Your task to perform on an android device: toggle translation in the chrome app Image 0: 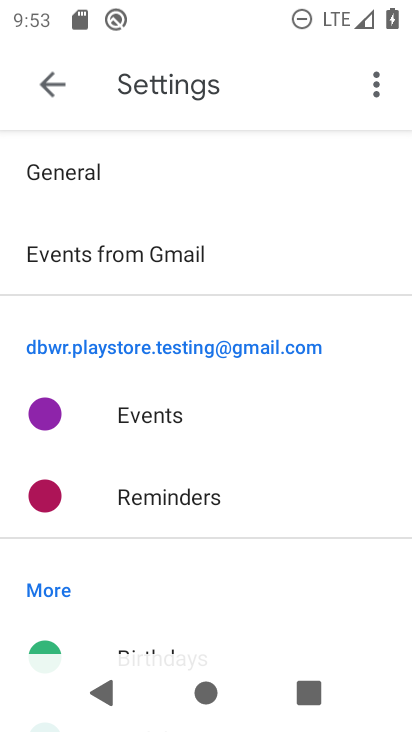
Step 0: press home button
Your task to perform on an android device: toggle translation in the chrome app Image 1: 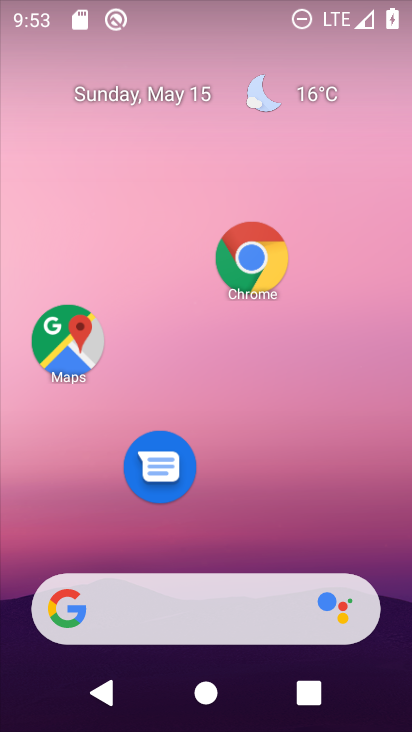
Step 1: click (253, 259)
Your task to perform on an android device: toggle translation in the chrome app Image 2: 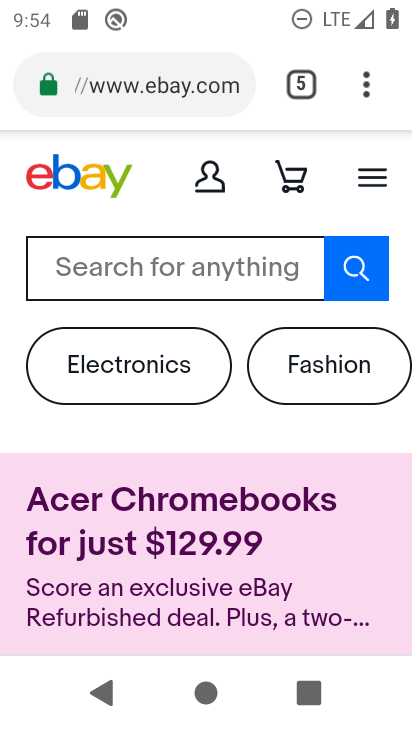
Step 2: click (376, 82)
Your task to perform on an android device: toggle translation in the chrome app Image 3: 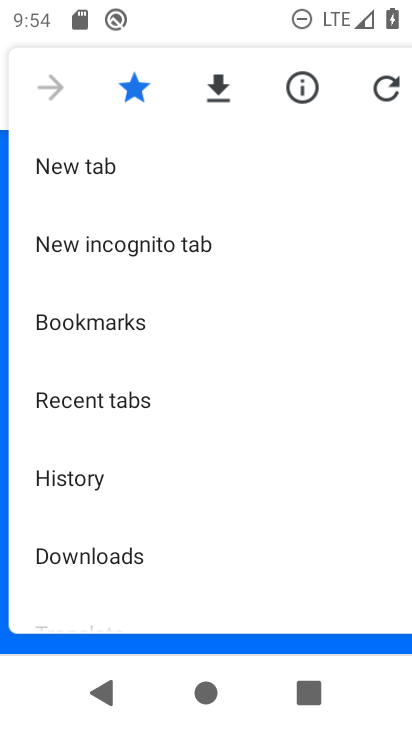
Step 3: drag from (164, 573) to (216, 138)
Your task to perform on an android device: toggle translation in the chrome app Image 4: 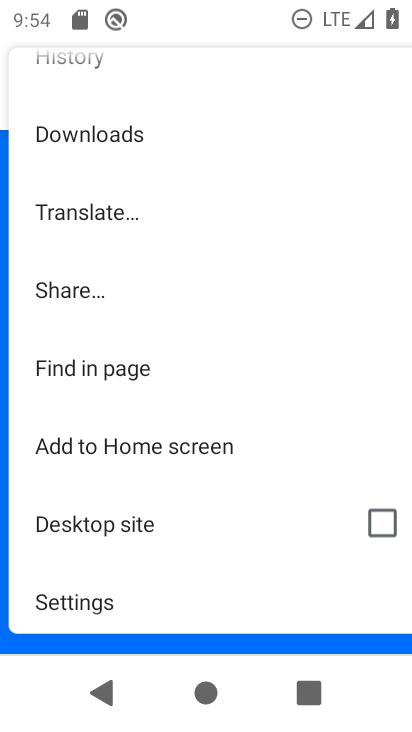
Step 4: click (145, 615)
Your task to perform on an android device: toggle translation in the chrome app Image 5: 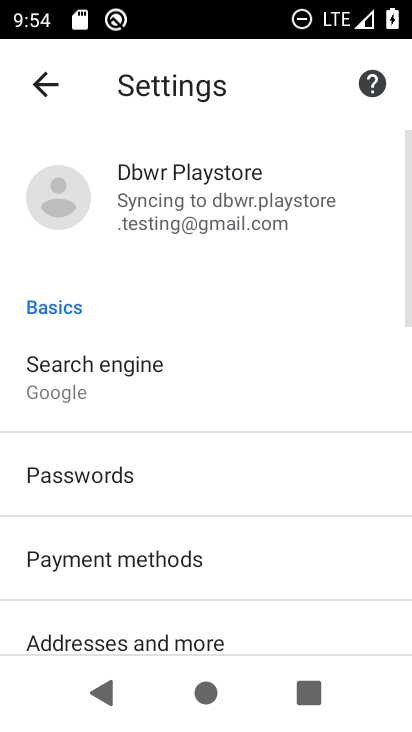
Step 5: drag from (145, 615) to (298, 220)
Your task to perform on an android device: toggle translation in the chrome app Image 6: 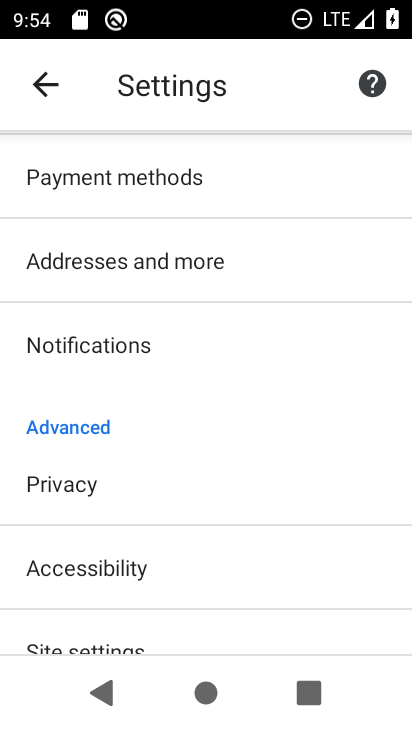
Step 6: drag from (173, 503) to (192, 264)
Your task to perform on an android device: toggle translation in the chrome app Image 7: 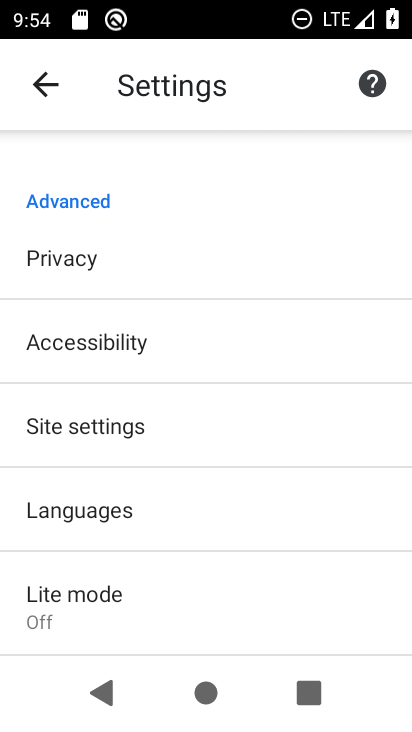
Step 7: click (186, 510)
Your task to perform on an android device: toggle translation in the chrome app Image 8: 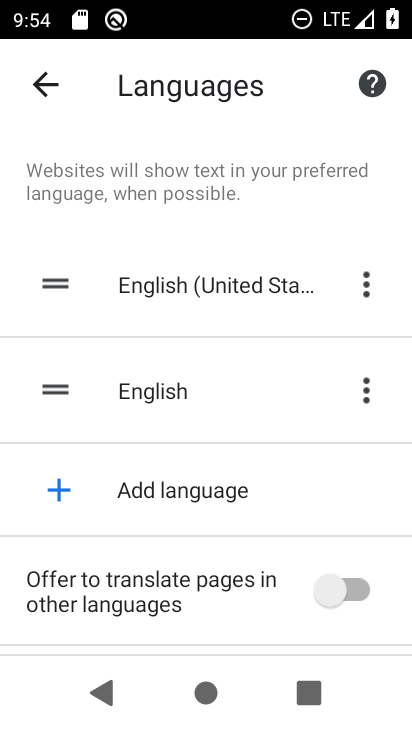
Step 8: click (353, 586)
Your task to perform on an android device: toggle translation in the chrome app Image 9: 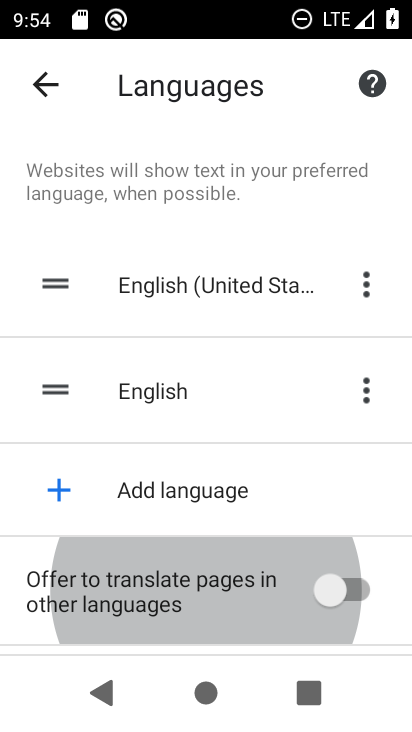
Step 9: click (353, 586)
Your task to perform on an android device: toggle translation in the chrome app Image 10: 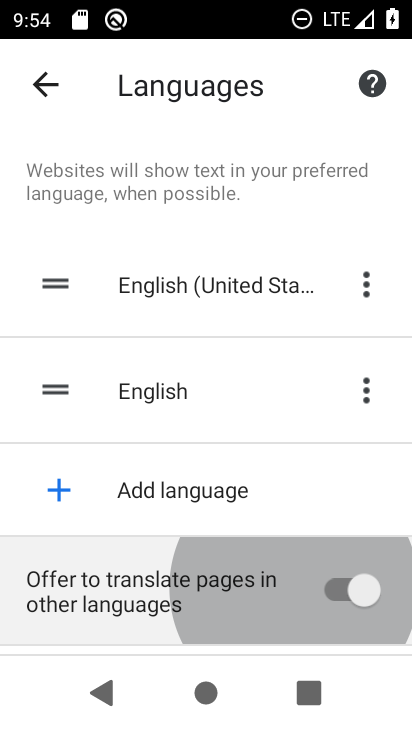
Step 10: click (353, 586)
Your task to perform on an android device: toggle translation in the chrome app Image 11: 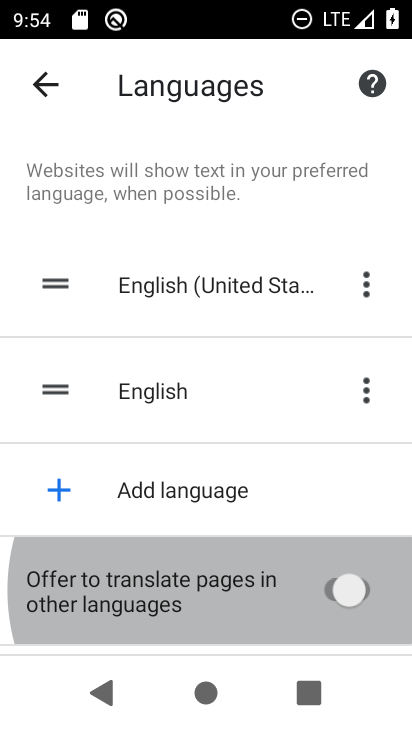
Step 11: click (353, 586)
Your task to perform on an android device: toggle translation in the chrome app Image 12: 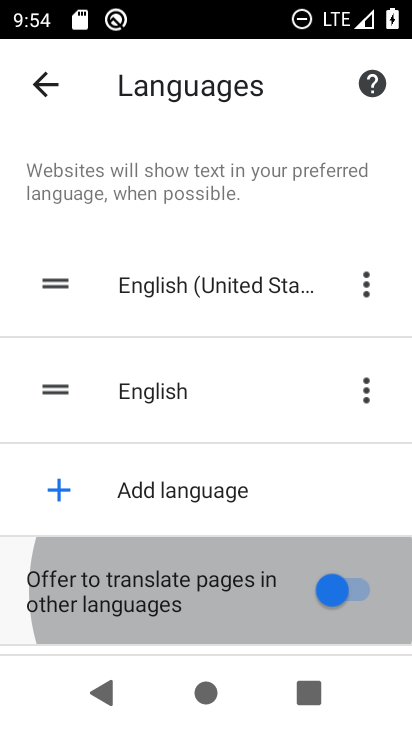
Step 12: click (353, 586)
Your task to perform on an android device: toggle translation in the chrome app Image 13: 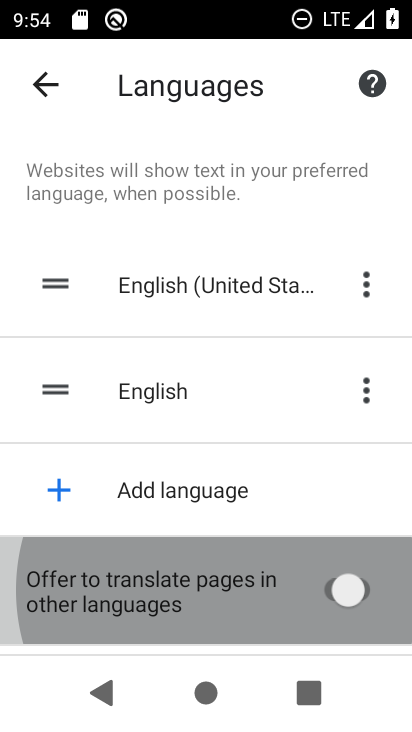
Step 13: click (353, 586)
Your task to perform on an android device: toggle translation in the chrome app Image 14: 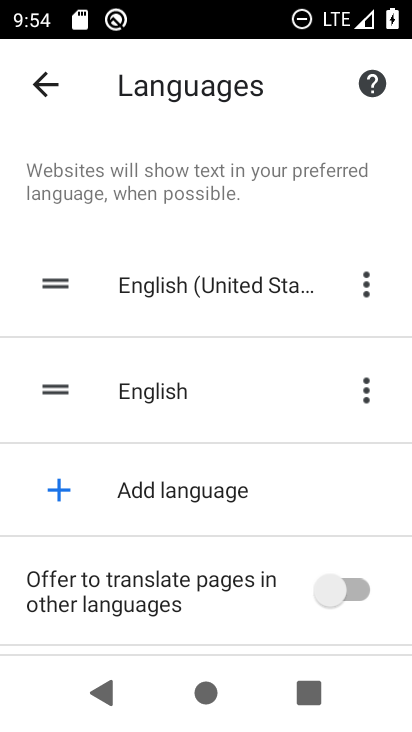
Step 14: task complete